Your task to perform on an android device: Open accessibility settings Image 0: 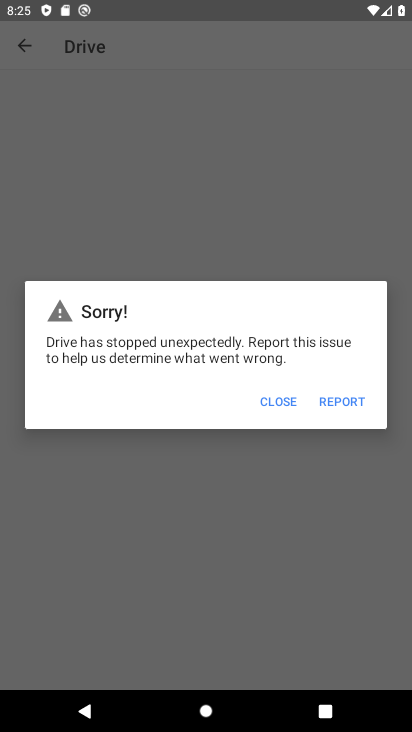
Step 0: press home button
Your task to perform on an android device: Open accessibility settings Image 1: 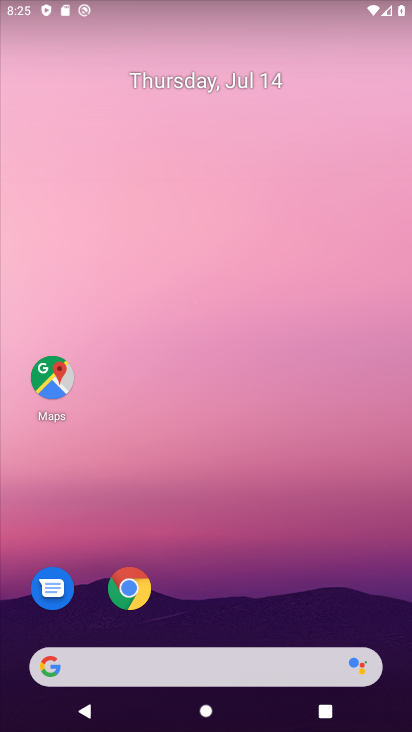
Step 1: drag from (248, 622) to (293, 147)
Your task to perform on an android device: Open accessibility settings Image 2: 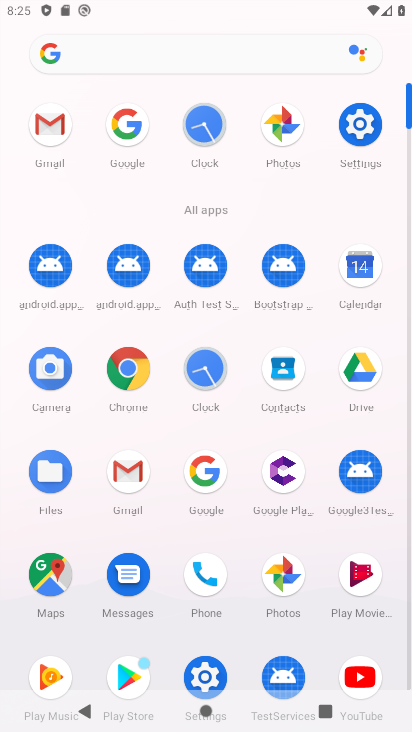
Step 2: click (360, 118)
Your task to perform on an android device: Open accessibility settings Image 3: 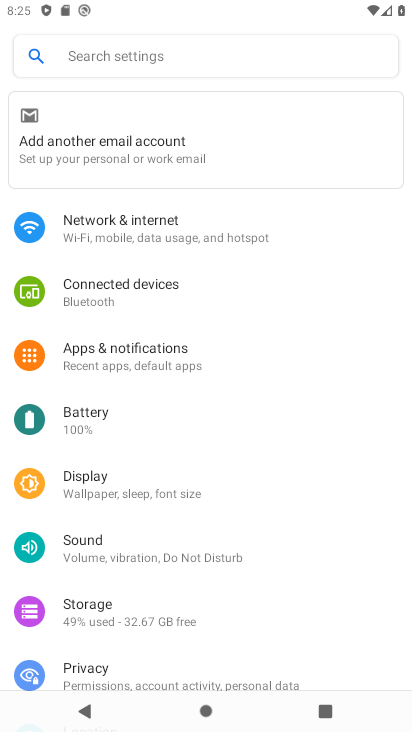
Step 3: drag from (262, 648) to (281, 268)
Your task to perform on an android device: Open accessibility settings Image 4: 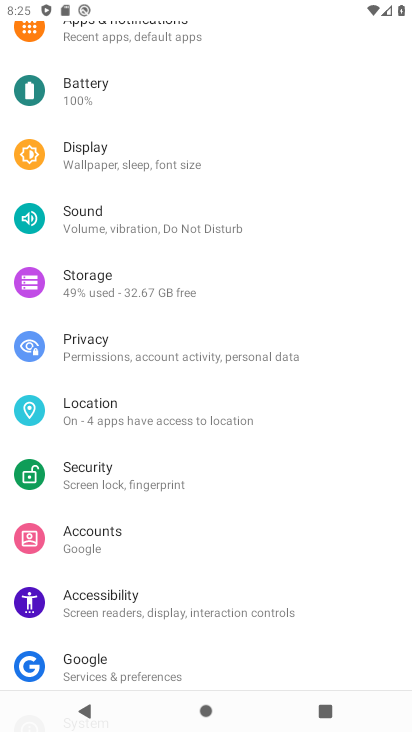
Step 4: click (137, 607)
Your task to perform on an android device: Open accessibility settings Image 5: 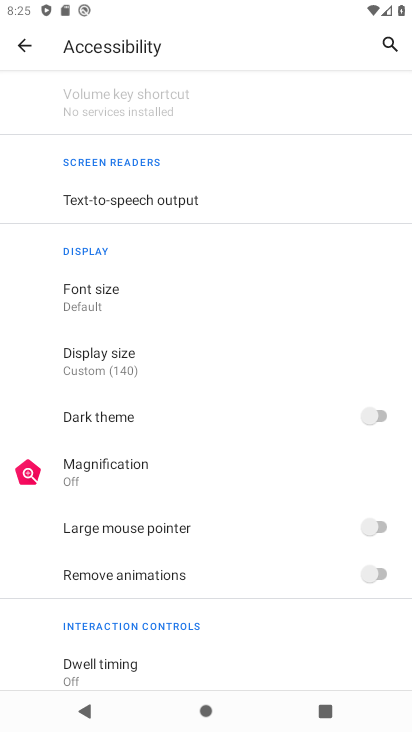
Step 5: task complete